Your task to perform on an android device: Open settings Image 0: 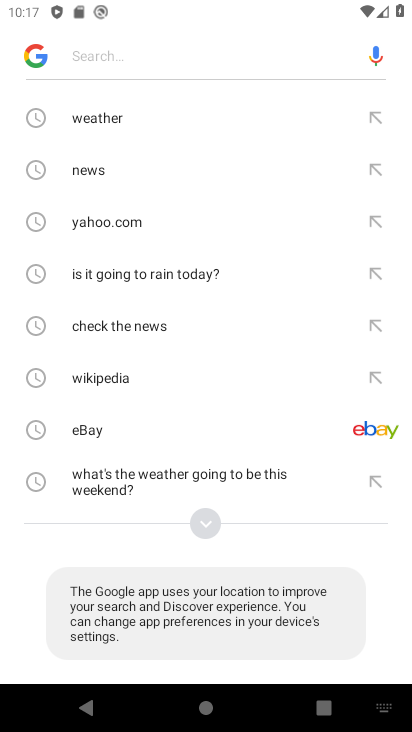
Step 0: press home button
Your task to perform on an android device: Open settings Image 1: 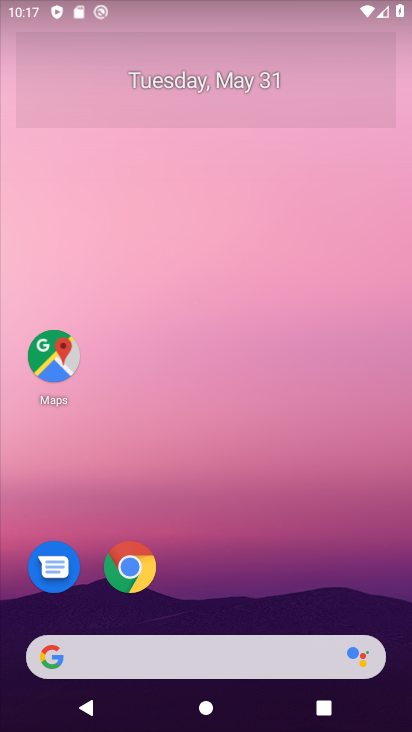
Step 1: drag from (206, 560) to (259, 39)
Your task to perform on an android device: Open settings Image 2: 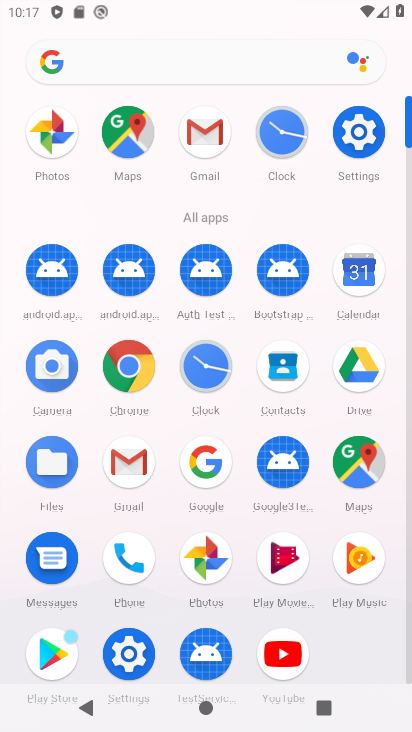
Step 2: click (366, 128)
Your task to perform on an android device: Open settings Image 3: 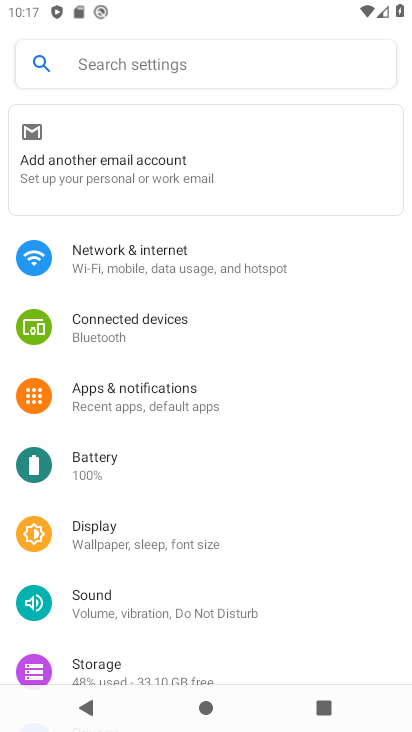
Step 3: task complete